Your task to perform on an android device: turn off data saver in the chrome app Image 0: 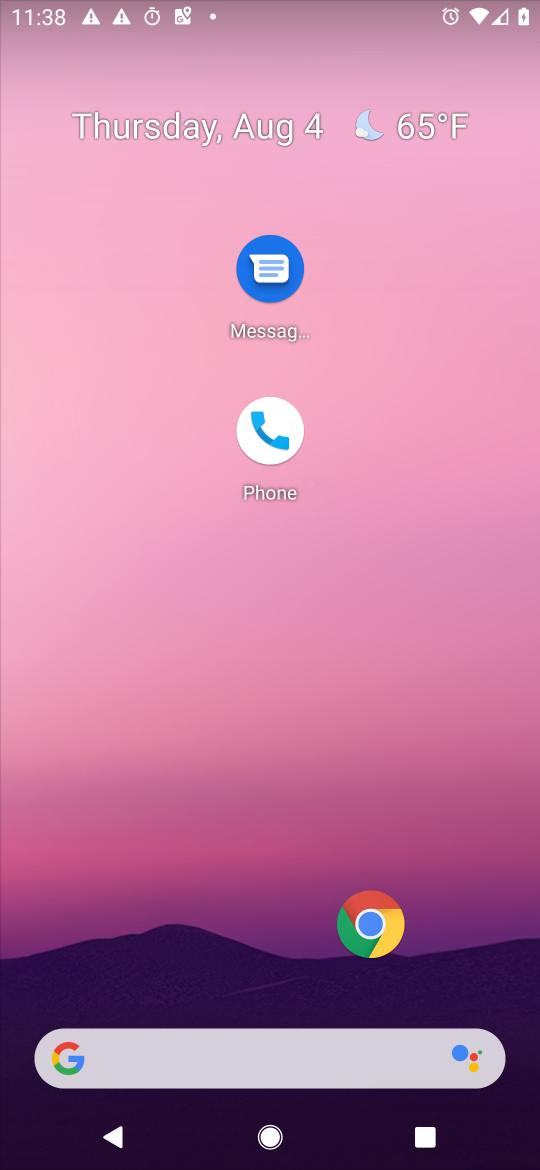
Step 0: drag from (199, 933) to (238, 277)
Your task to perform on an android device: turn off data saver in the chrome app Image 1: 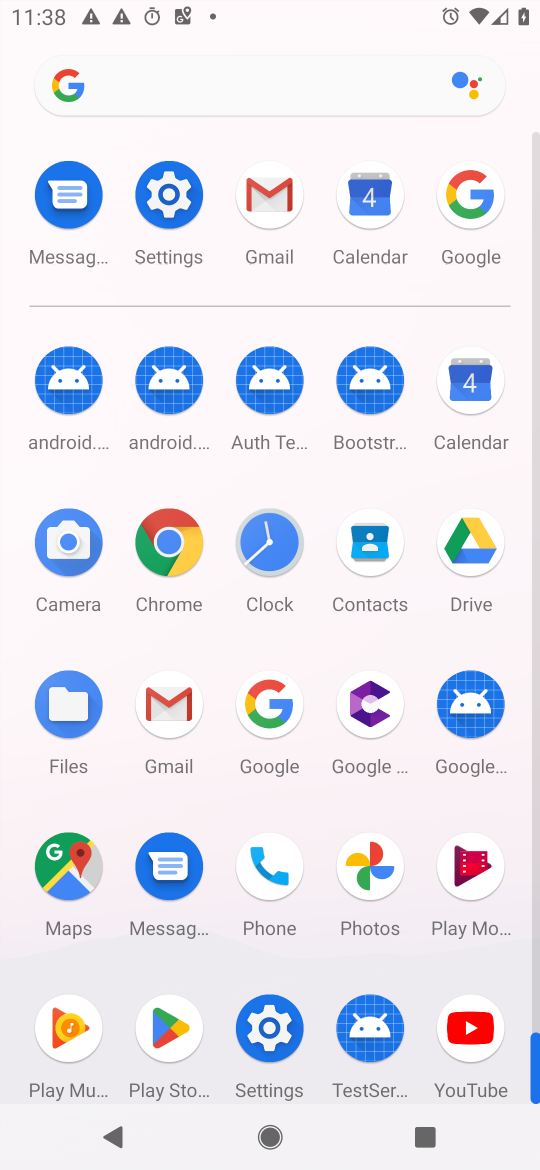
Step 1: click (172, 540)
Your task to perform on an android device: turn off data saver in the chrome app Image 2: 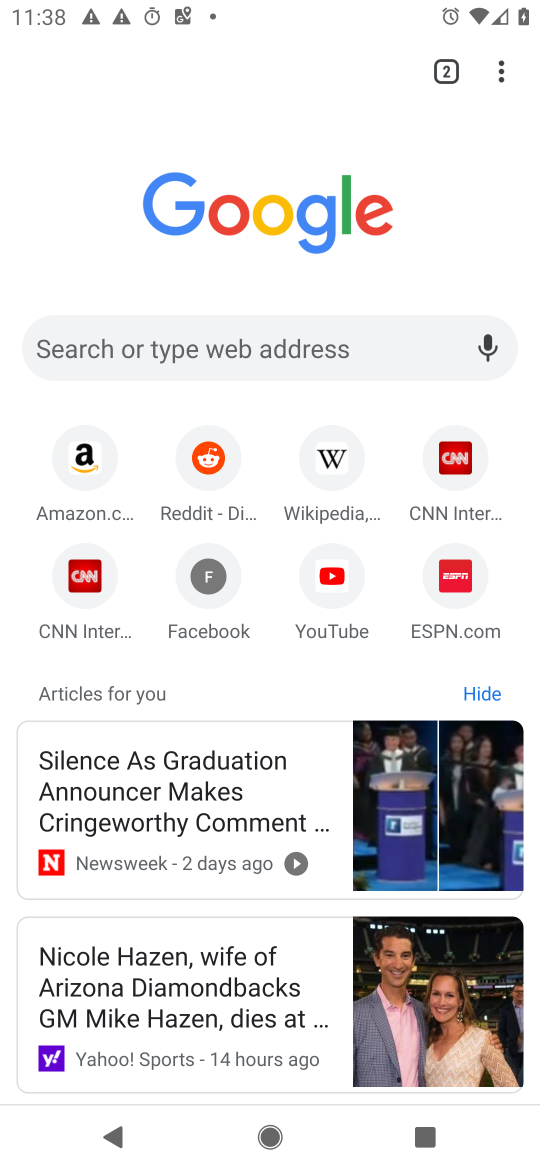
Step 2: drag from (499, 57) to (324, 608)
Your task to perform on an android device: turn off data saver in the chrome app Image 3: 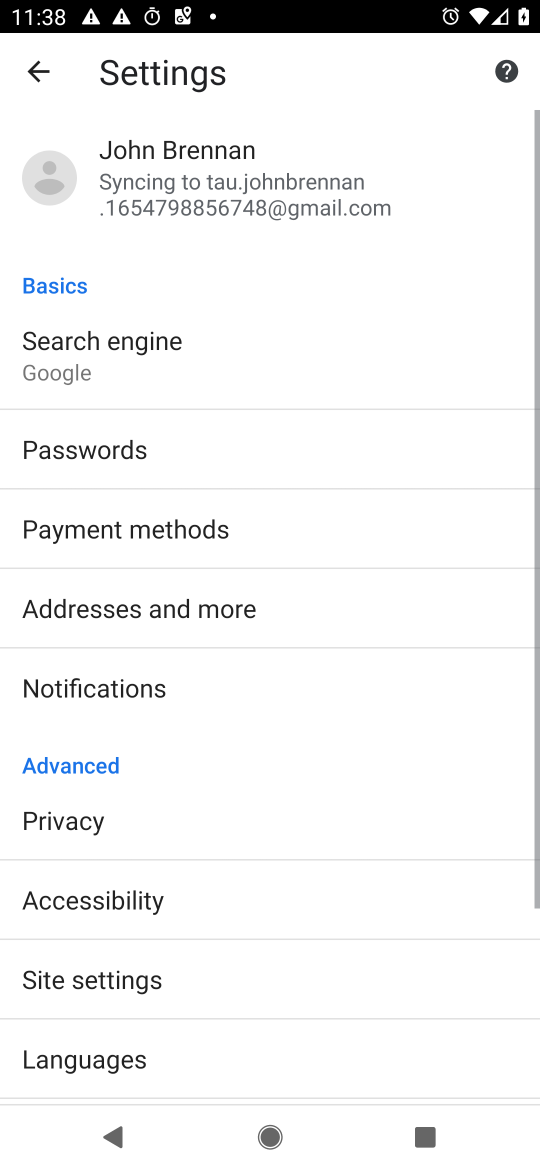
Step 3: drag from (170, 873) to (269, 414)
Your task to perform on an android device: turn off data saver in the chrome app Image 4: 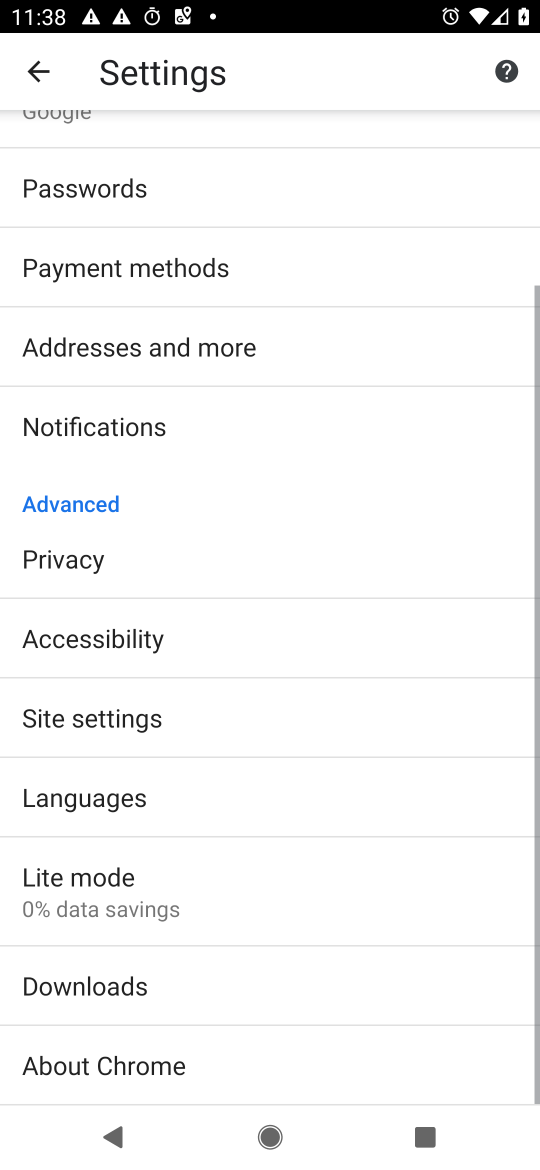
Step 4: click (149, 887)
Your task to perform on an android device: turn off data saver in the chrome app Image 5: 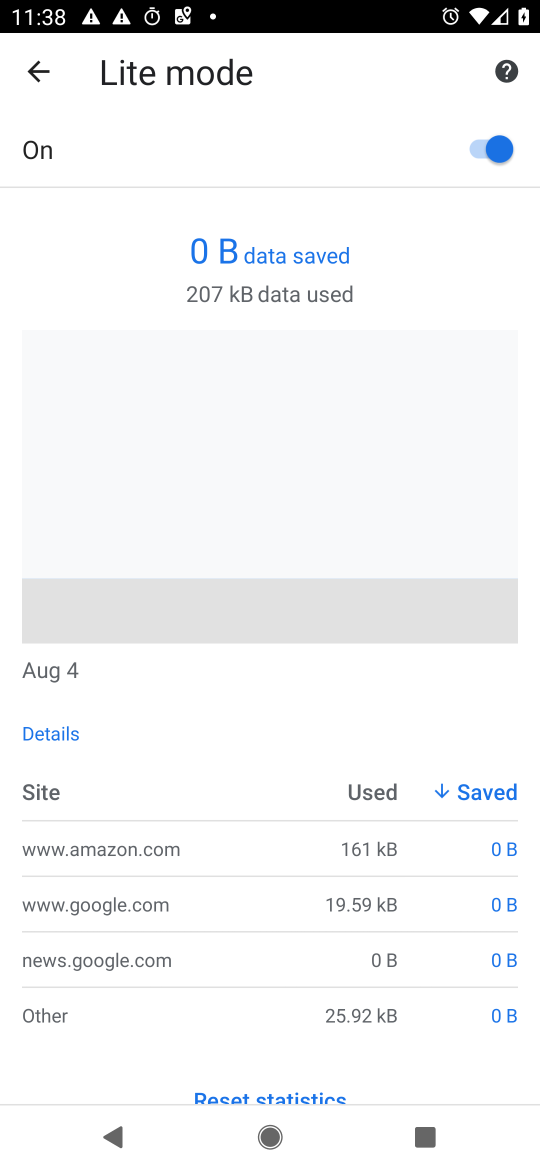
Step 5: click (509, 142)
Your task to perform on an android device: turn off data saver in the chrome app Image 6: 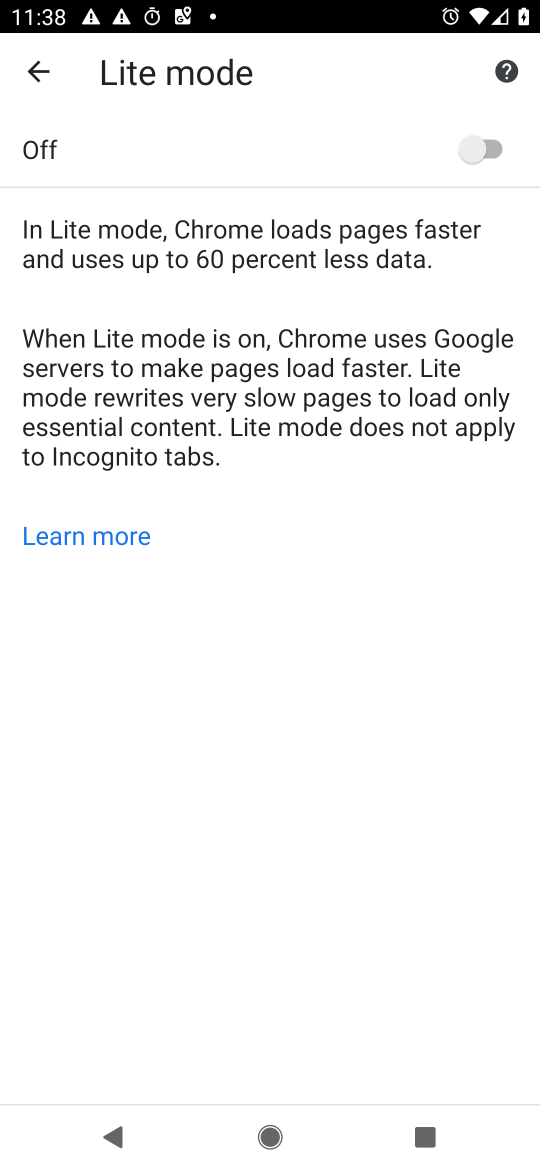
Step 6: task complete